Your task to perform on an android device: turn notification dots off Image 0: 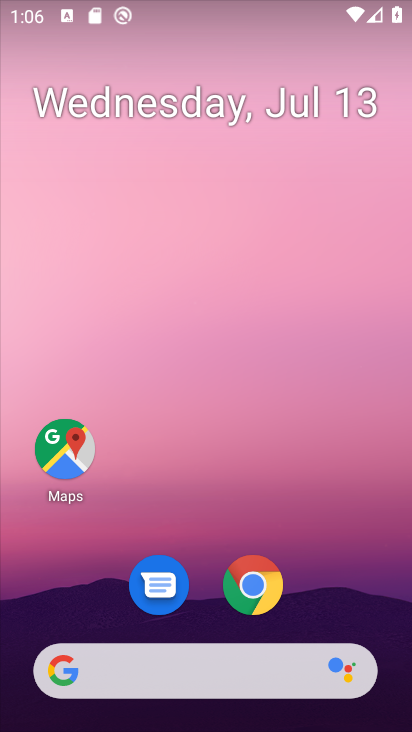
Step 0: drag from (312, 583) to (297, 68)
Your task to perform on an android device: turn notification dots off Image 1: 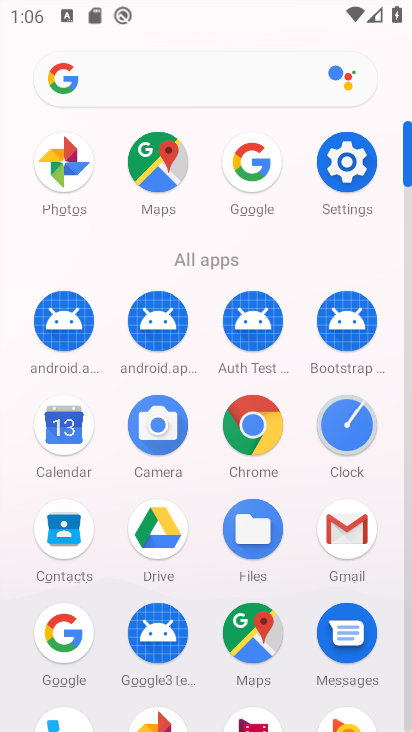
Step 1: click (348, 161)
Your task to perform on an android device: turn notification dots off Image 2: 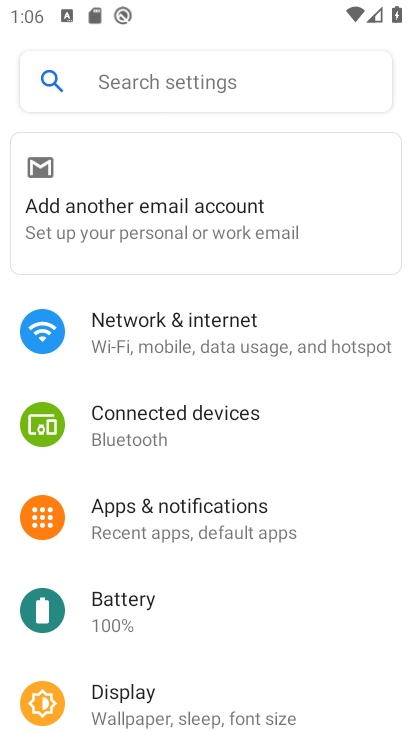
Step 2: click (245, 507)
Your task to perform on an android device: turn notification dots off Image 3: 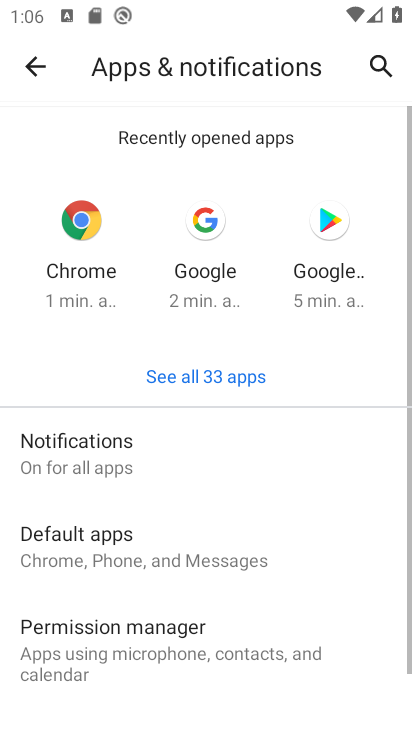
Step 3: click (111, 455)
Your task to perform on an android device: turn notification dots off Image 4: 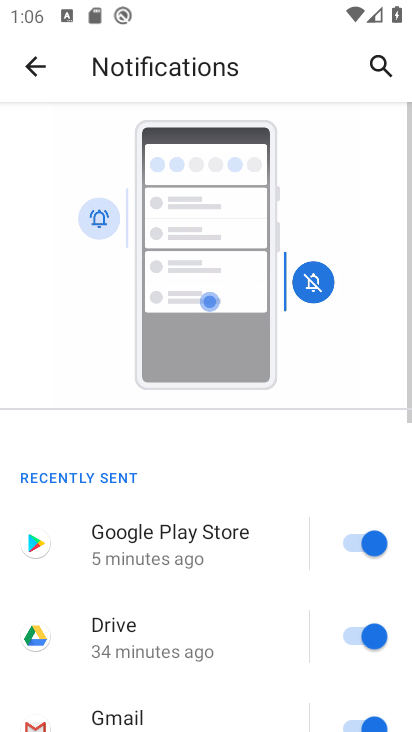
Step 4: drag from (229, 599) to (228, 80)
Your task to perform on an android device: turn notification dots off Image 5: 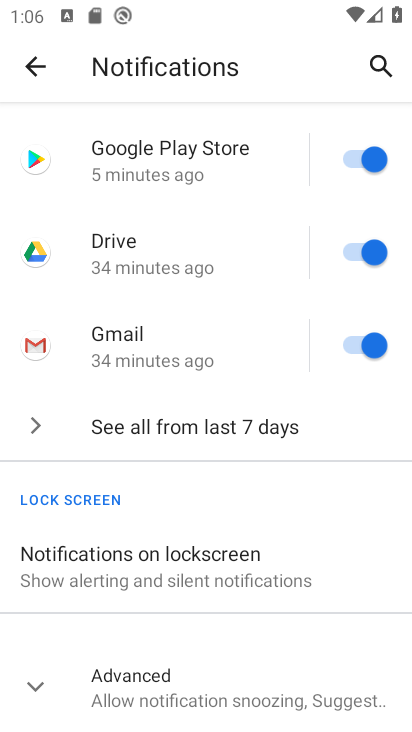
Step 5: click (39, 689)
Your task to perform on an android device: turn notification dots off Image 6: 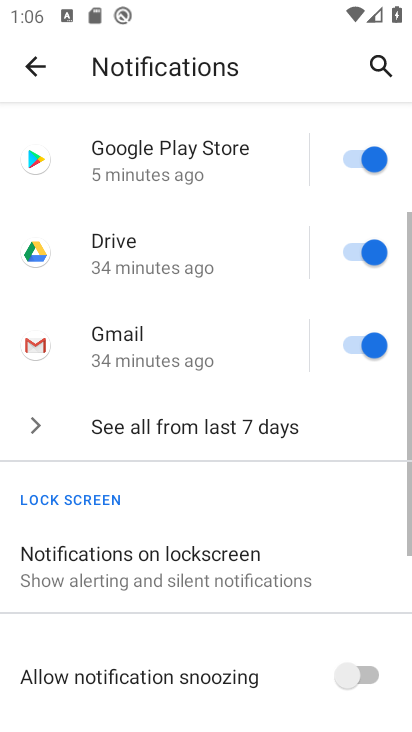
Step 6: drag from (175, 623) to (218, 123)
Your task to perform on an android device: turn notification dots off Image 7: 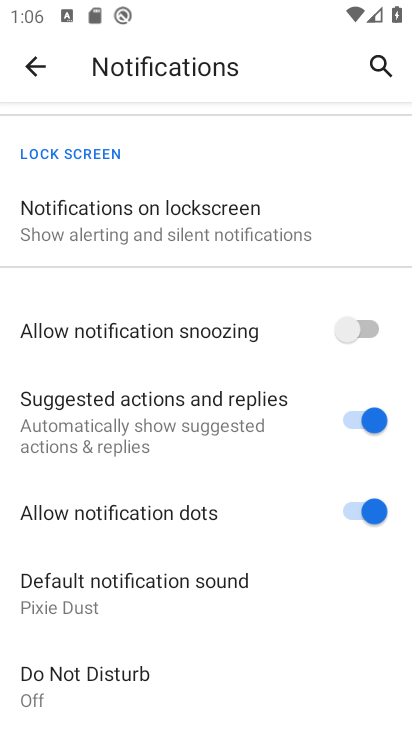
Step 7: click (359, 508)
Your task to perform on an android device: turn notification dots off Image 8: 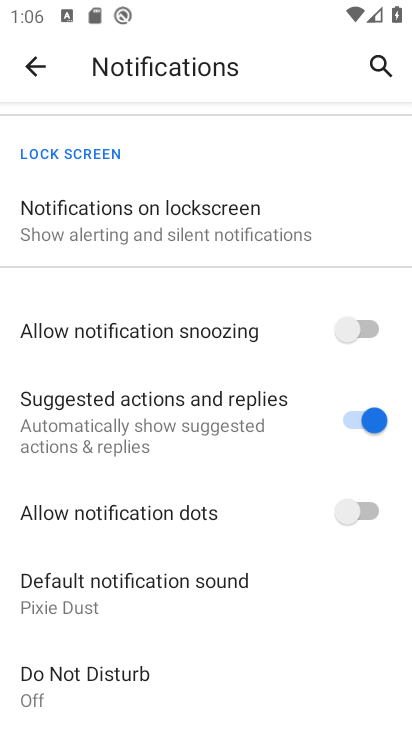
Step 8: task complete